Your task to perform on an android device: Search for seafood restaurants on Google Maps Image 0: 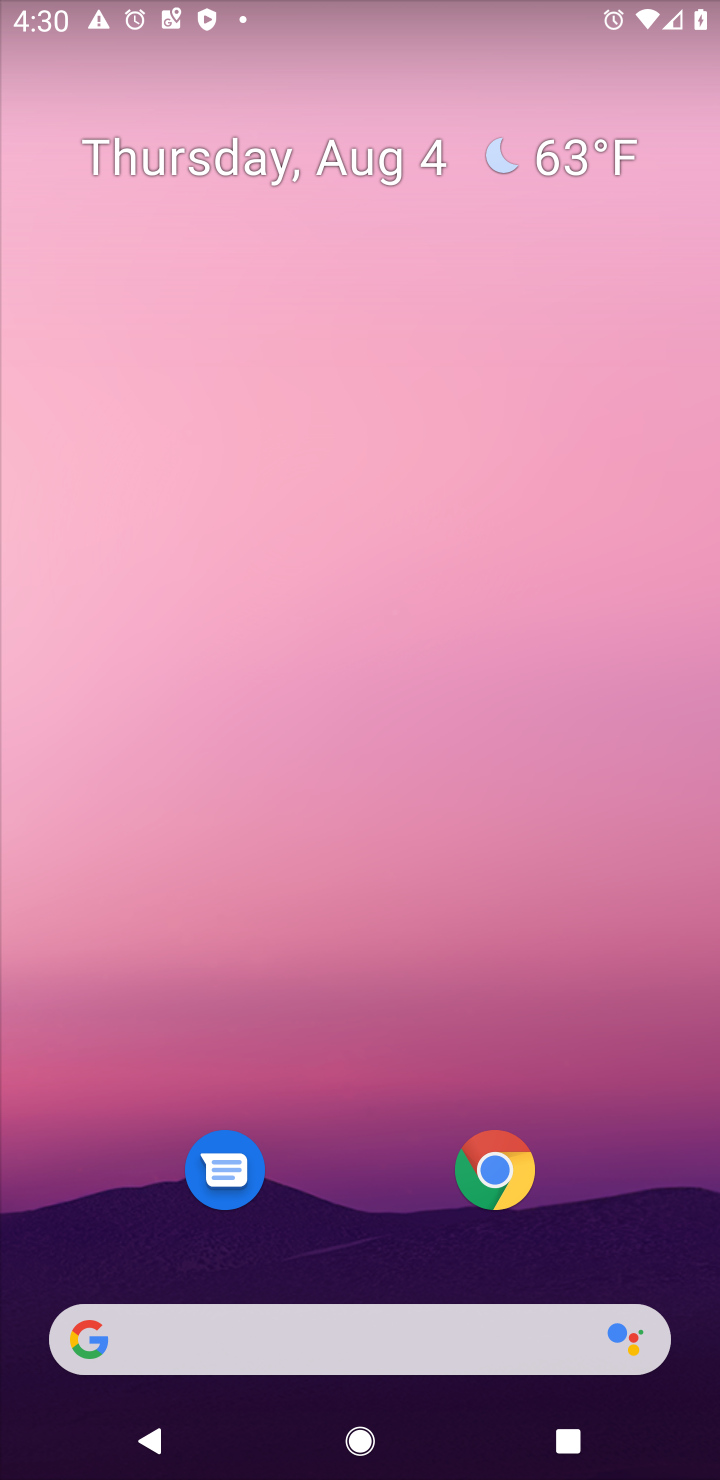
Step 0: drag from (629, 1245) to (549, 257)
Your task to perform on an android device: Search for seafood restaurants on Google Maps Image 1: 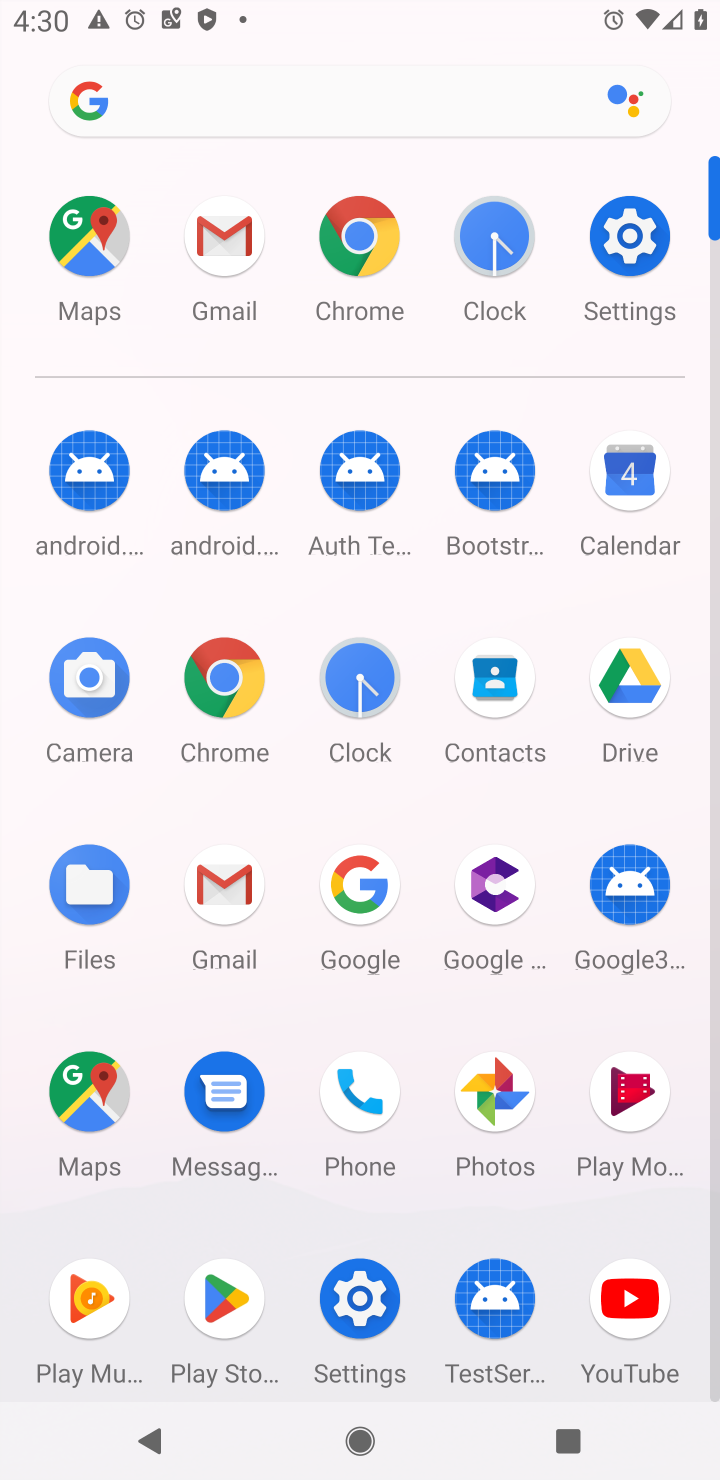
Step 1: click (94, 1095)
Your task to perform on an android device: Search for seafood restaurants on Google Maps Image 2: 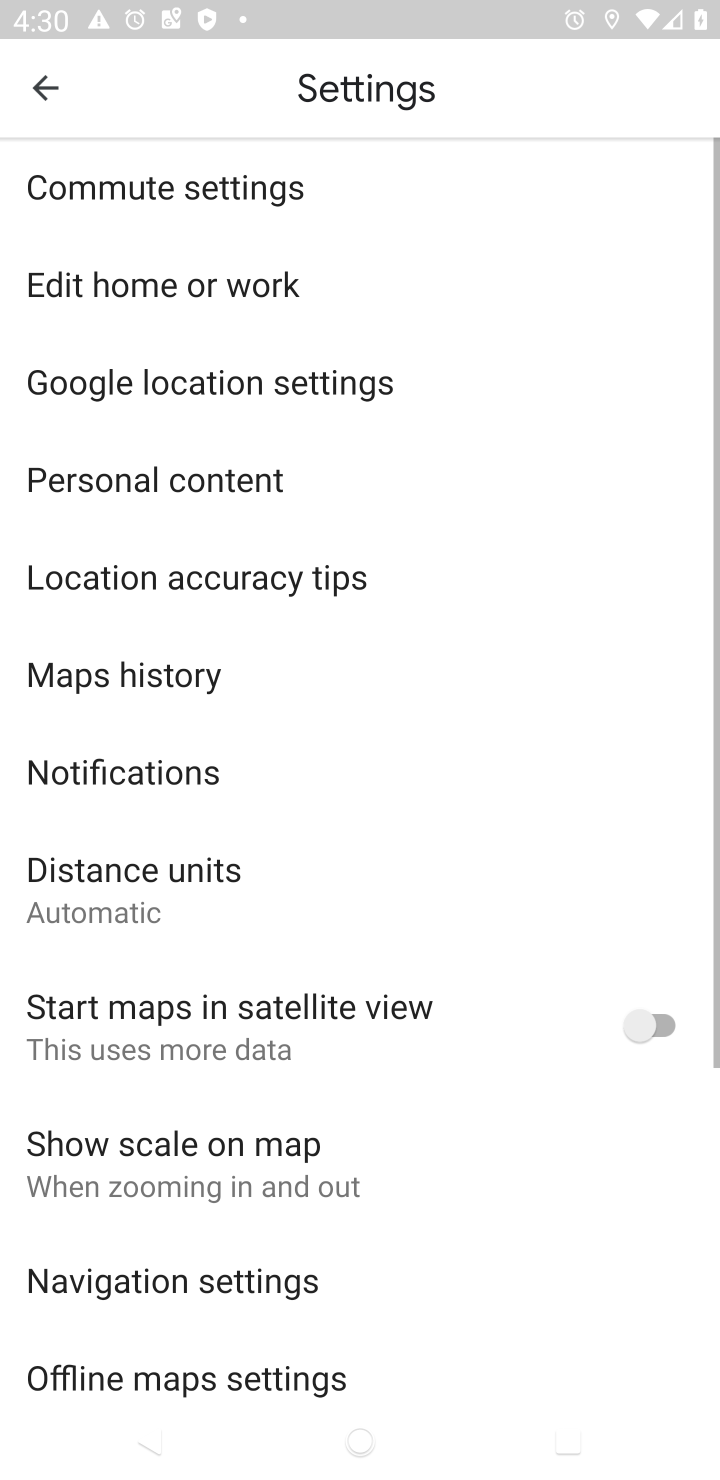
Step 2: press back button
Your task to perform on an android device: Search for seafood restaurants on Google Maps Image 3: 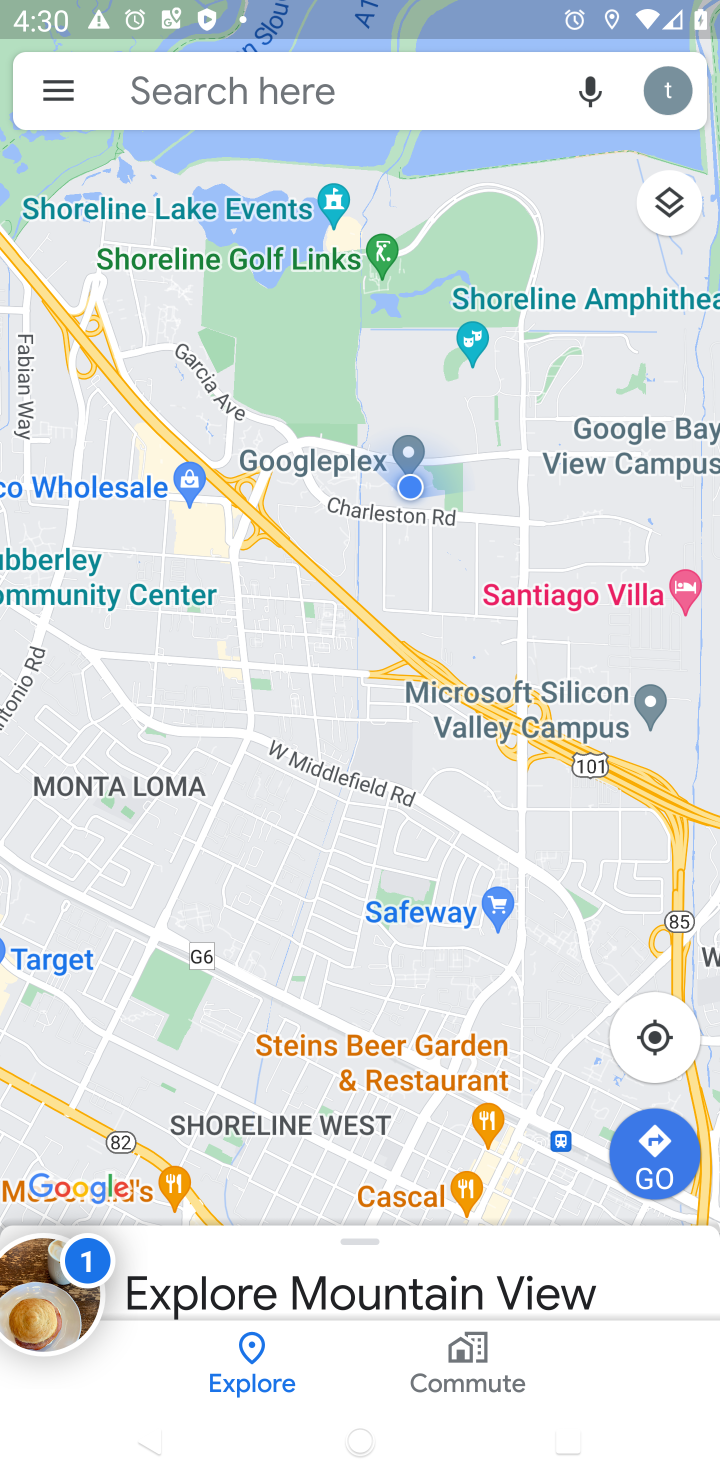
Step 3: click (330, 90)
Your task to perform on an android device: Search for seafood restaurants on Google Maps Image 4: 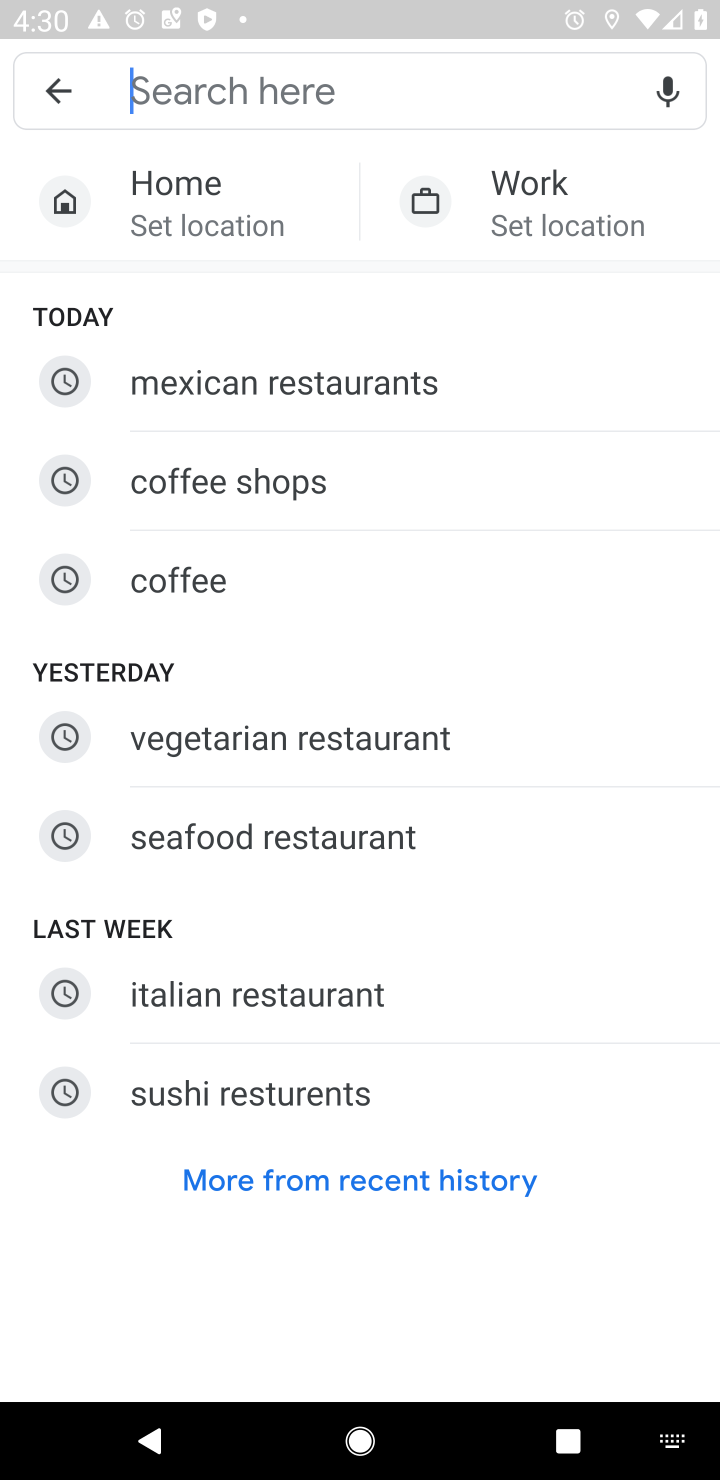
Step 4: type "seafood restaurants"
Your task to perform on an android device: Search for seafood restaurants on Google Maps Image 5: 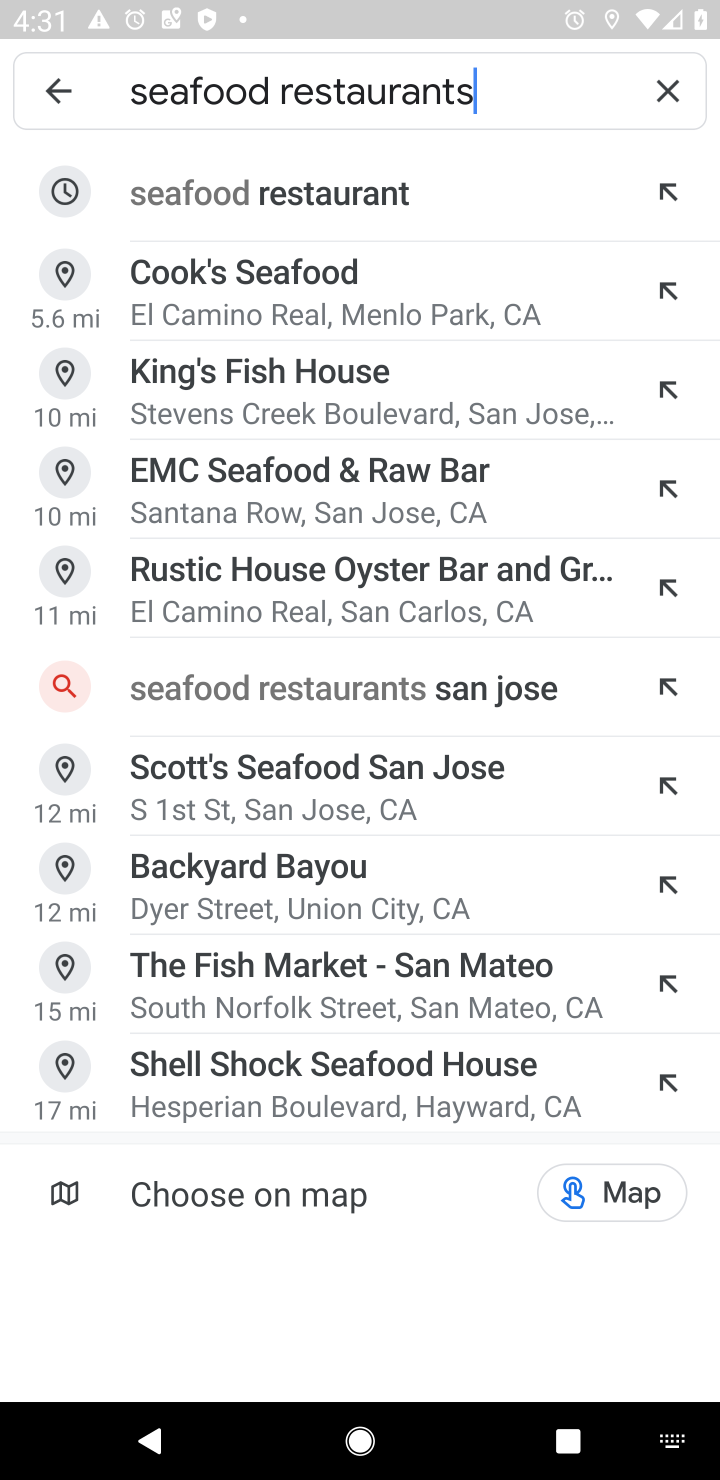
Step 5: click (230, 182)
Your task to perform on an android device: Search for seafood restaurants on Google Maps Image 6: 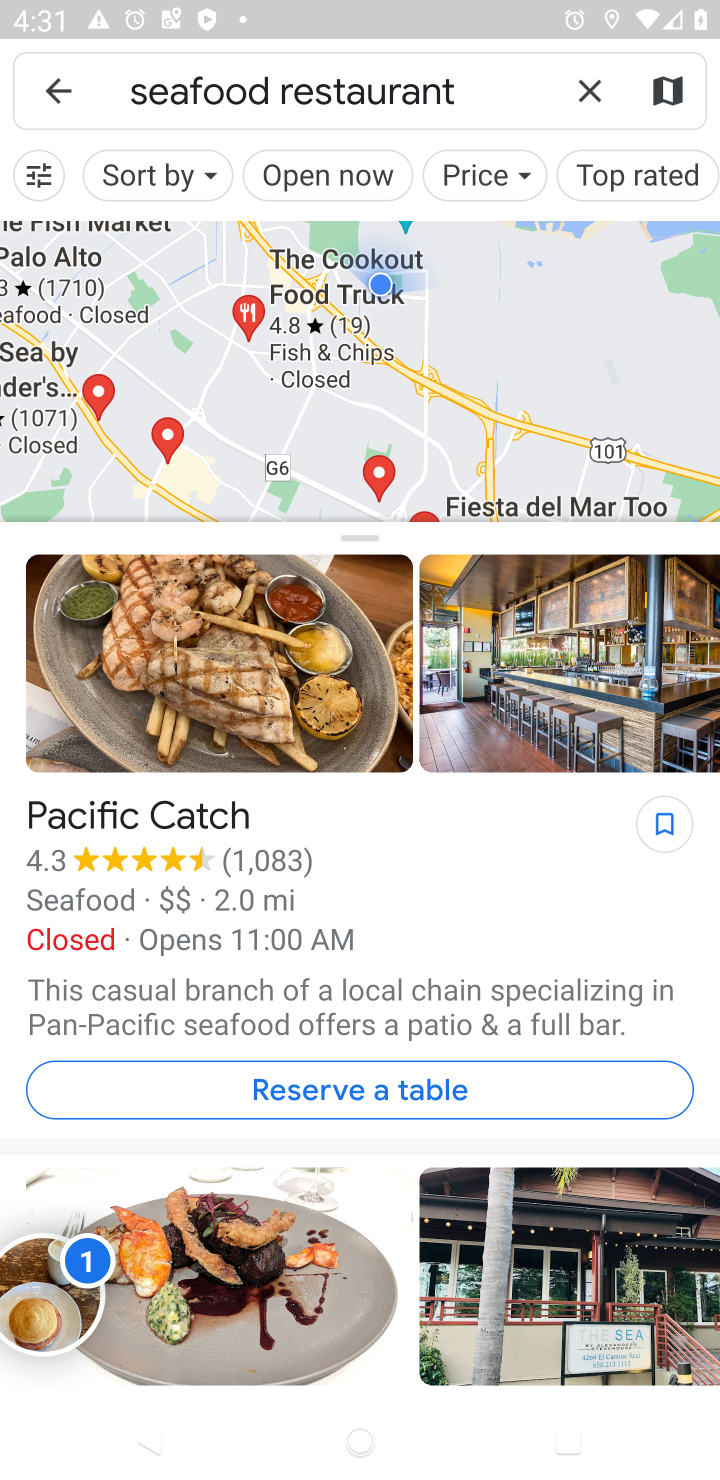
Step 6: task complete